Your task to perform on an android device: Clear the cart on amazon. Add "usb-a" to the cart on amazon, then select checkout. Image 0: 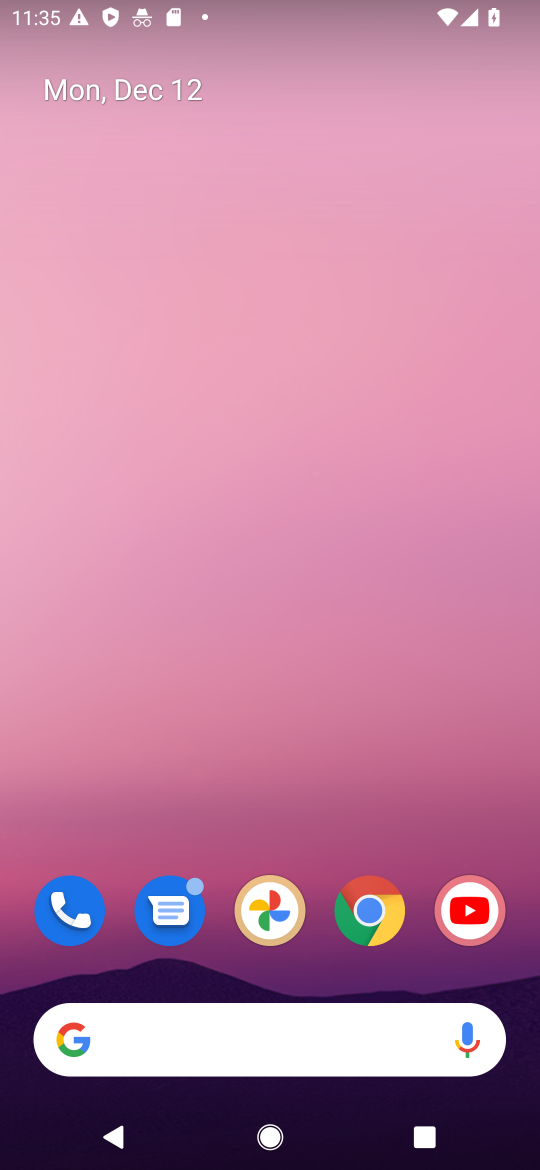
Step 0: click (371, 903)
Your task to perform on an android device: Clear the cart on amazon. Add "usb-a" to the cart on amazon, then select checkout. Image 1: 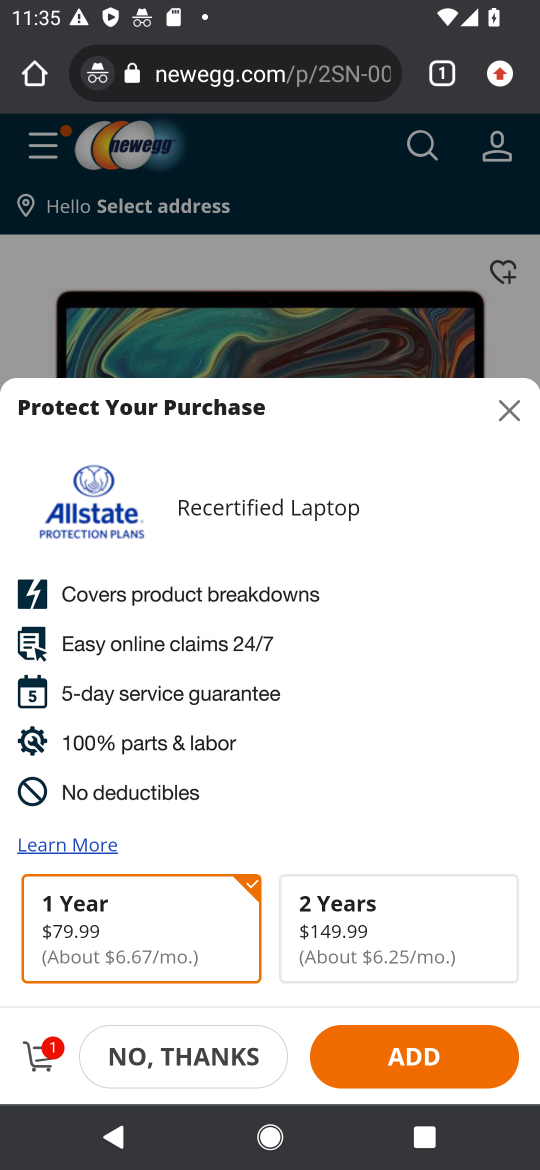
Step 1: click (512, 410)
Your task to perform on an android device: Clear the cart on amazon. Add "usb-a" to the cart on amazon, then select checkout. Image 2: 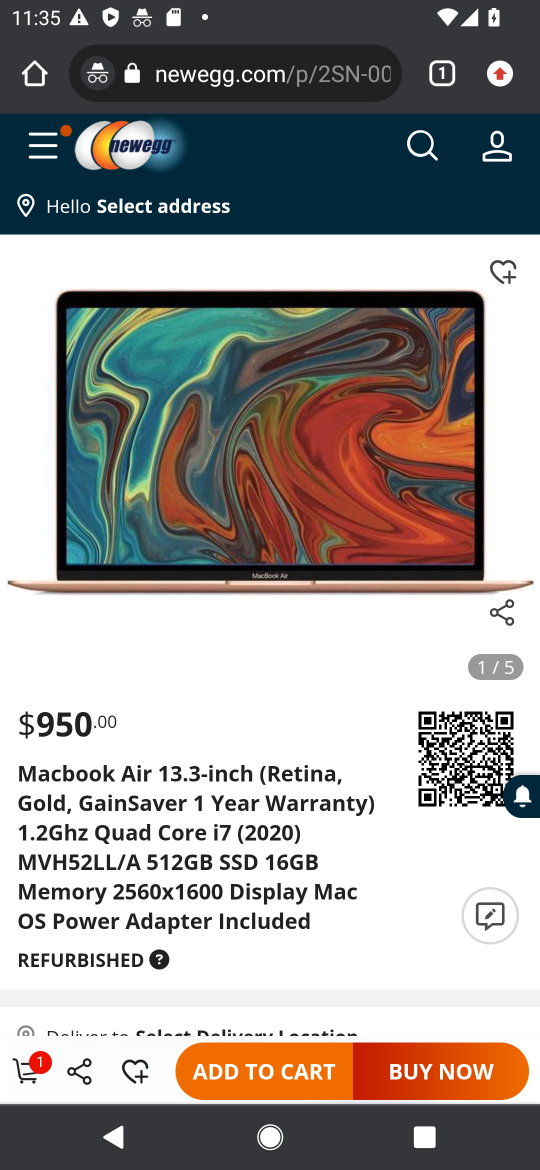
Step 2: click (268, 68)
Your task to perform on an android device: Clear the cart on amazon. Add "usb-a" to the cart on amazon, then select checkout. Image 3: 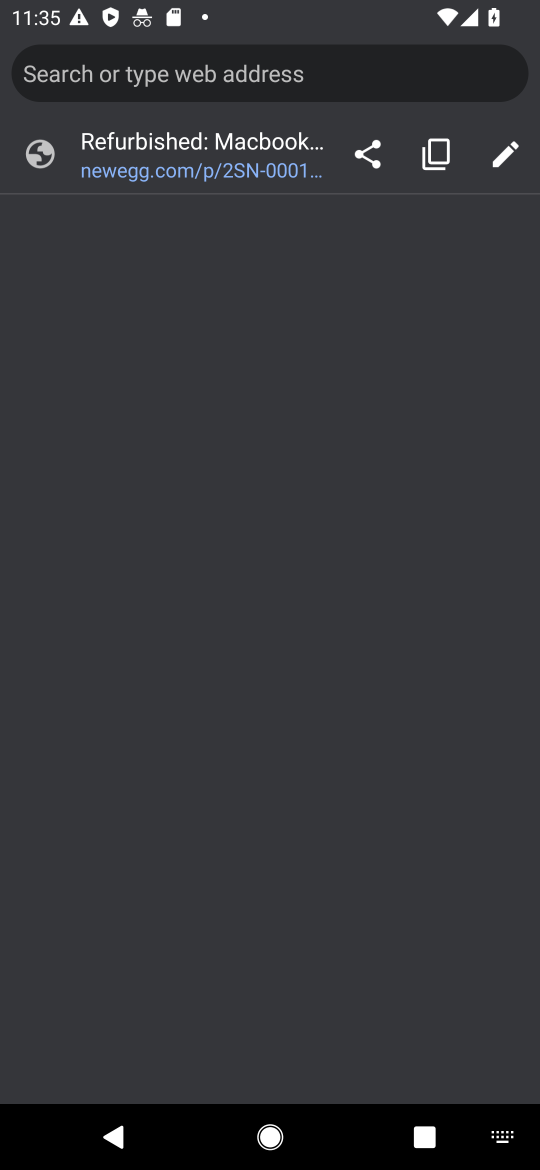
Step 3: type "amazon"
Your task to perform on an android device: Clear the cart on amazon. Add "usb-a" to the cart on amazon, then select checkout. Image 4: 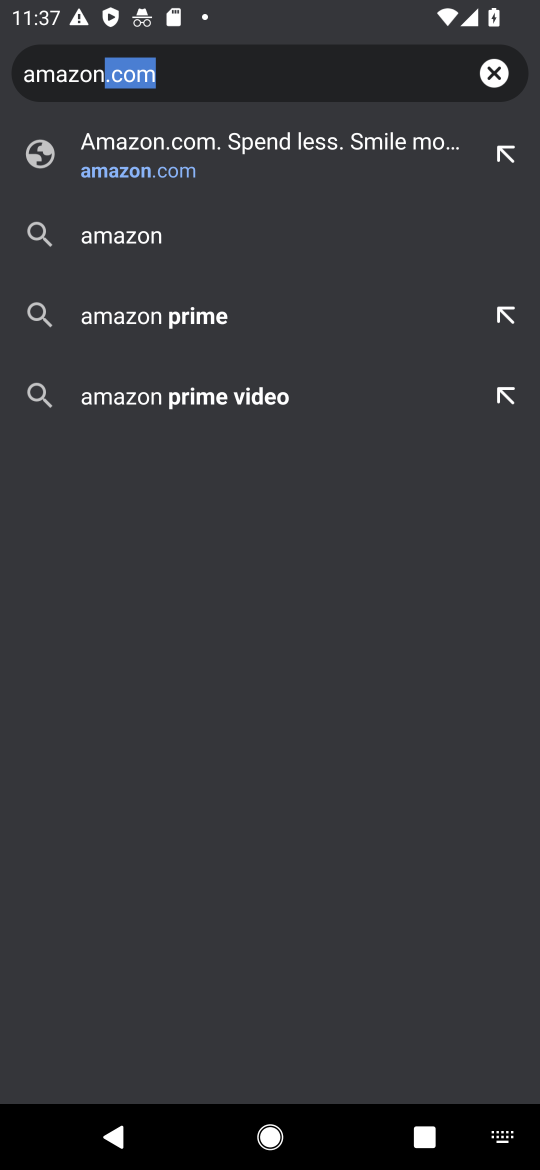
Step 4: click (246, 170)
Your task to perform on an android device: Clear the cart on amazon. Add "usb-a" to the cart on amazon, then select checkout. Image 5: 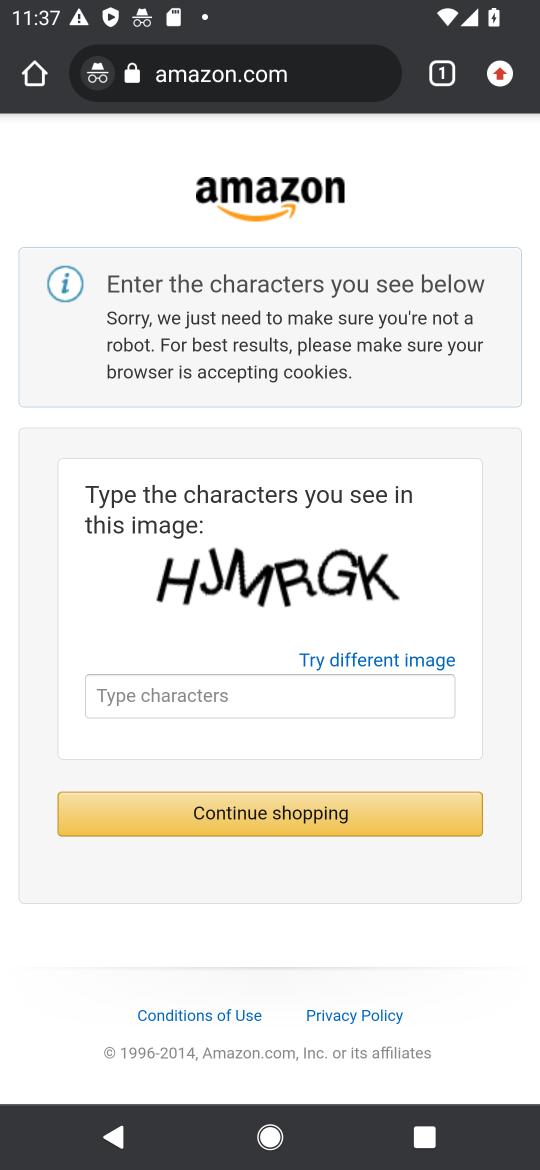
Step 5: click (195, 696)
Your task to perform on an android device: Clear the cart on amazon. Add "usb-a" to the cart on amazon, then select checkout. Image 6: 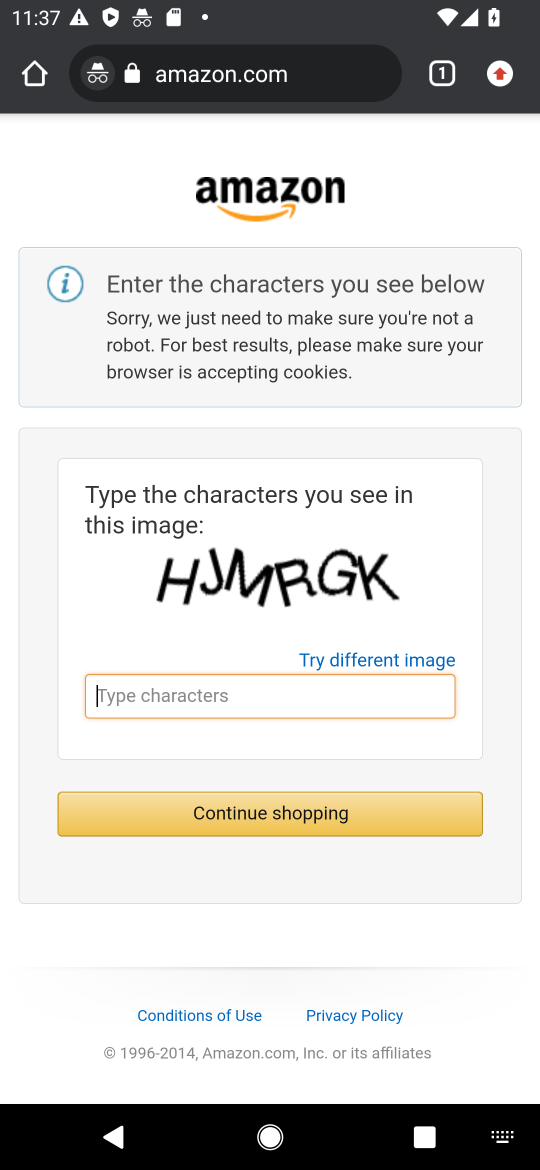
Step 6: type "HJMRGK"
Your task to perform on an android device: Clear the cart on amazon. Add "usb-a" to the cart on amazon, then select checkout. Image 7: 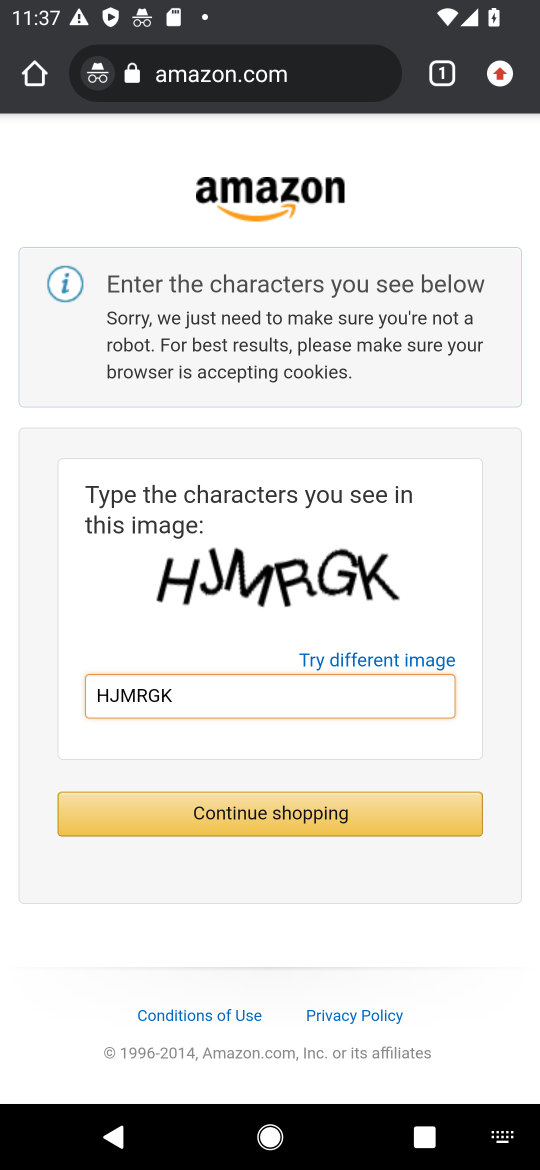
Step 7: click (270, 822)
Your task to perform on an android device: Clear the cart on amazon. Add "usb-a" to the cart on amazon, then select checkout. Image 8: 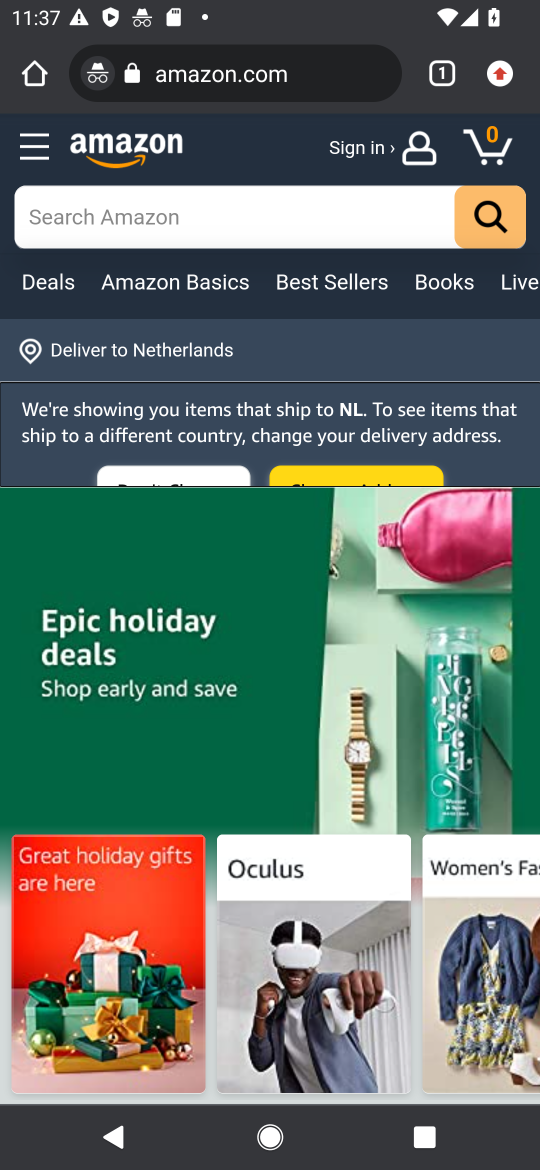
Step 8: click (270, 223)
Your task to perform on an android device: Clear the cart on amazon. Add "usb-a" to the cart on amazon, then select checkout. Image 9: 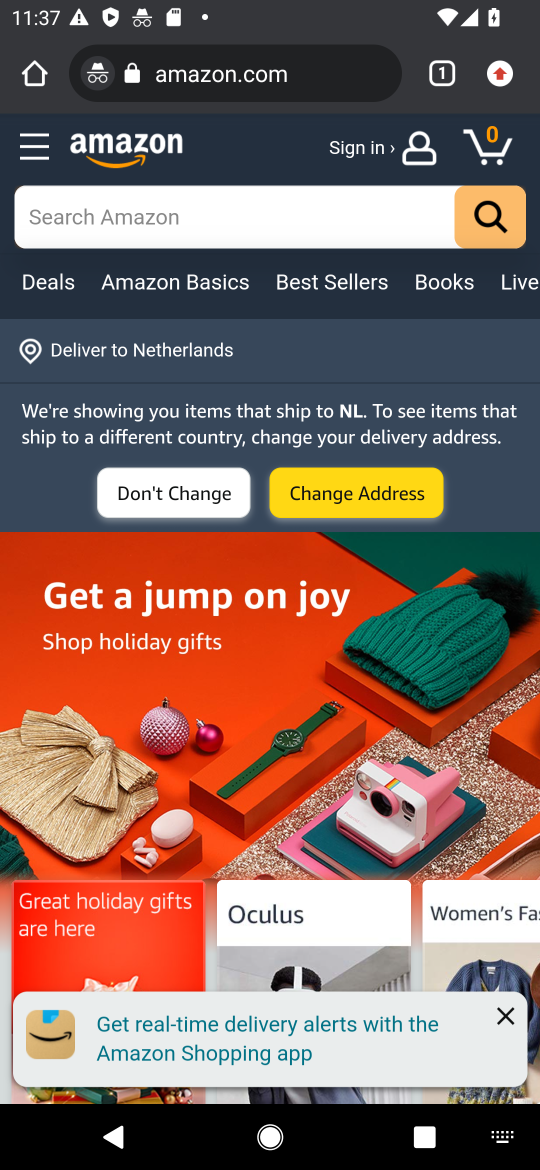
Step 9: type "usb-a"
Your task to perform on an android device: Clear the cart on amazon. Add "usb-a" to the cart on amazon, then select checkout. Image 10: 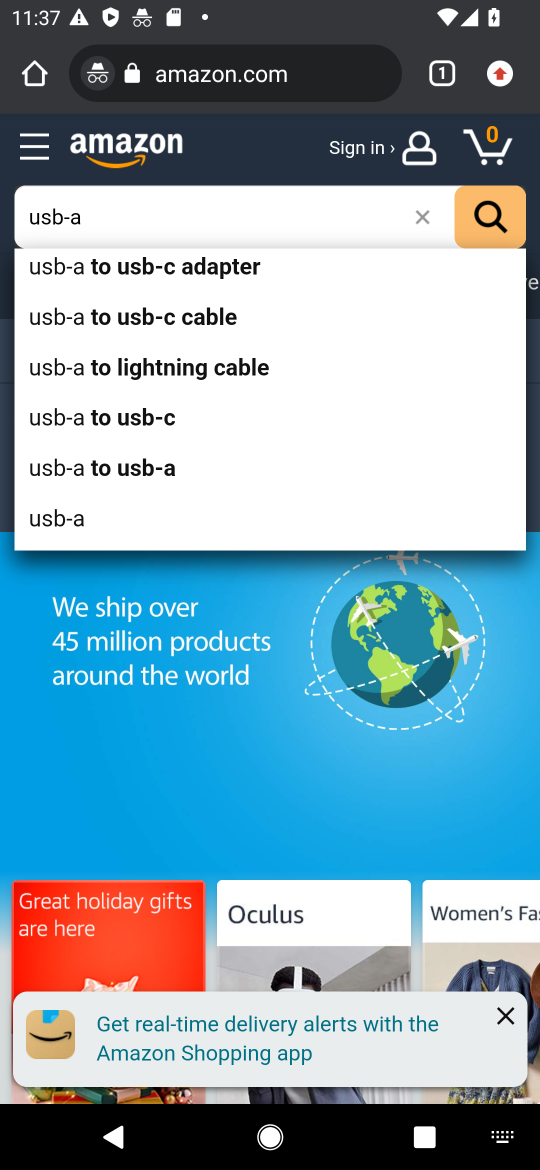
Step 10: click (97, 267)
Your task to perform on an android device: Clear the cart on amazon. Add "usb-a" to the cart on amazon, then select checkout. Image 11: 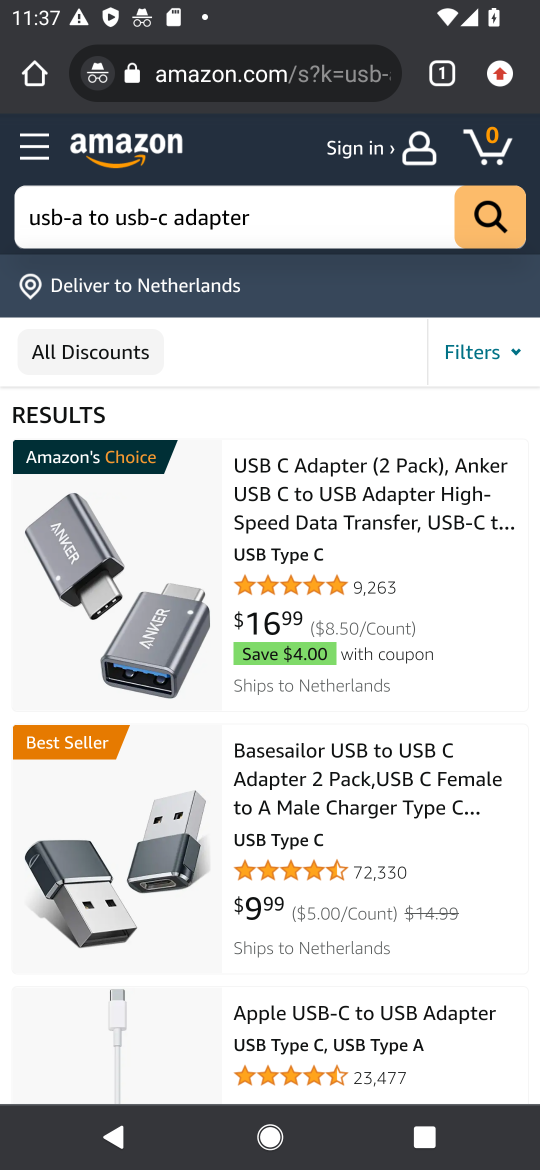
Step 11: click (477, 537)
Your task to perform on an android device: Clear the cart on amazon. Add "usb-a" to the cart on amazon, then select checkout. Image 12: 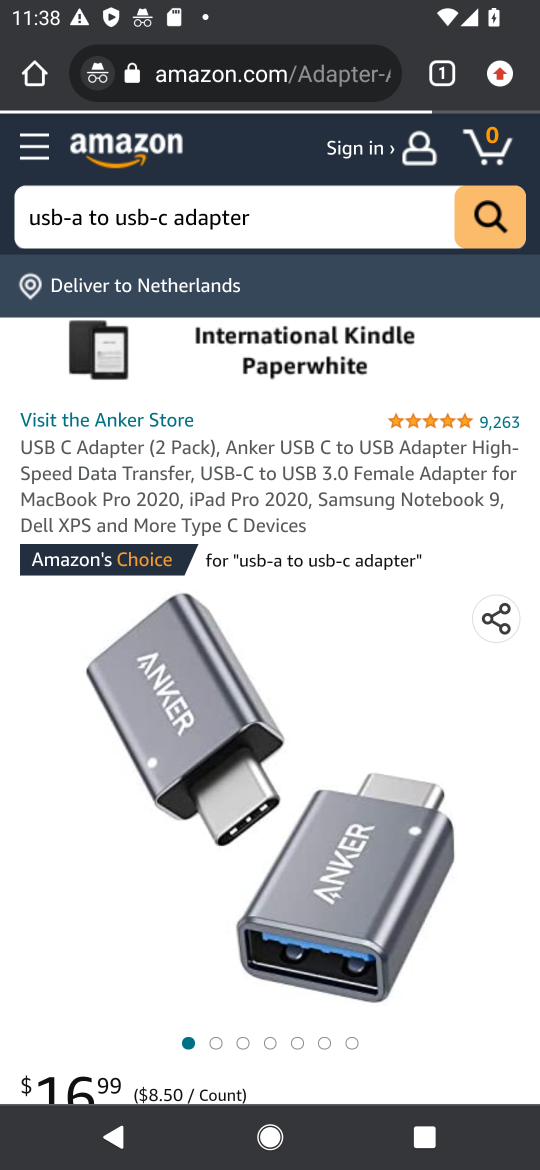
Step 12: drag from (351, 948) to (295, 205)
Your task to perform on an android device: Clear the cart on amazon. Add "usb-a" to the cart on amazon, then select checkout. Image 13: 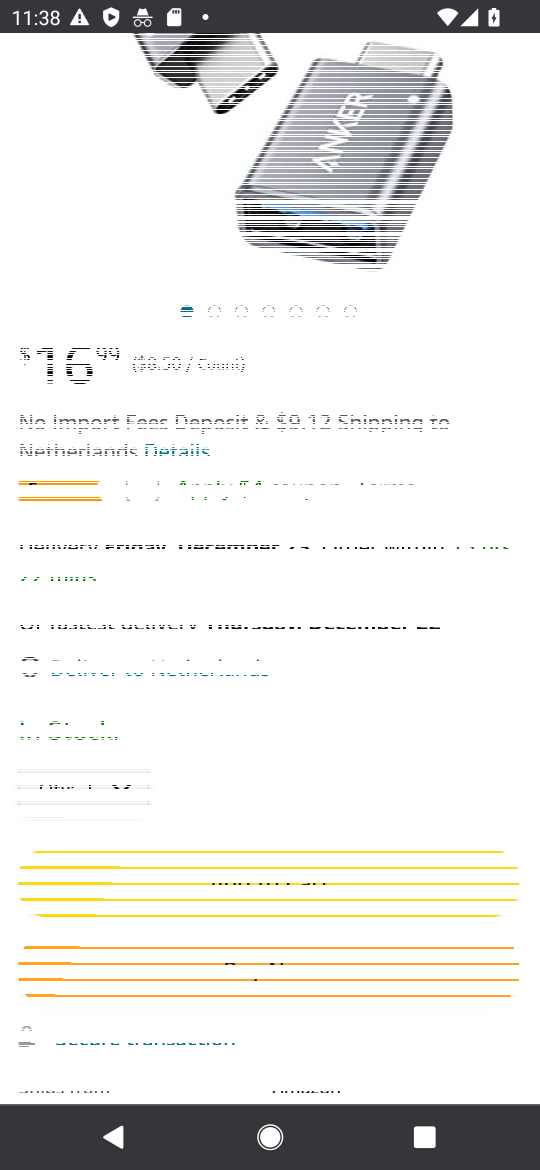
Step 13: click (249, 870)
Your task to perform on an android device: Clear the cart on amazon. Add "usb-a" to the cart on amazon, then select checkout. Image 14: 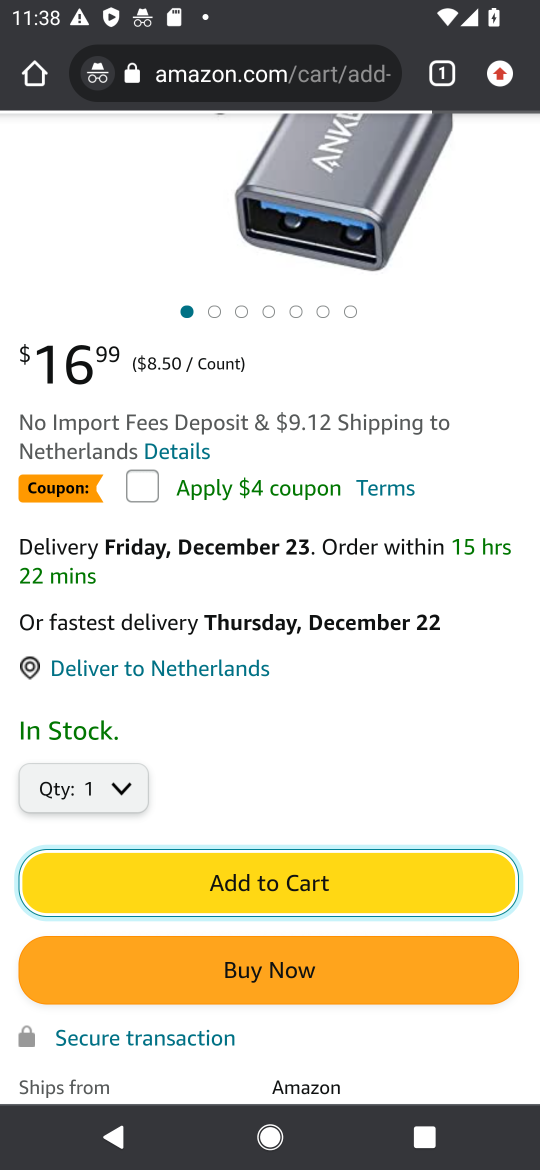
Step 14: click (249, 870)
Your task to perform on an android device: Clear the cart on amazon. Add "usb-a" to the cart on amazon, then select checkout. Image 15: 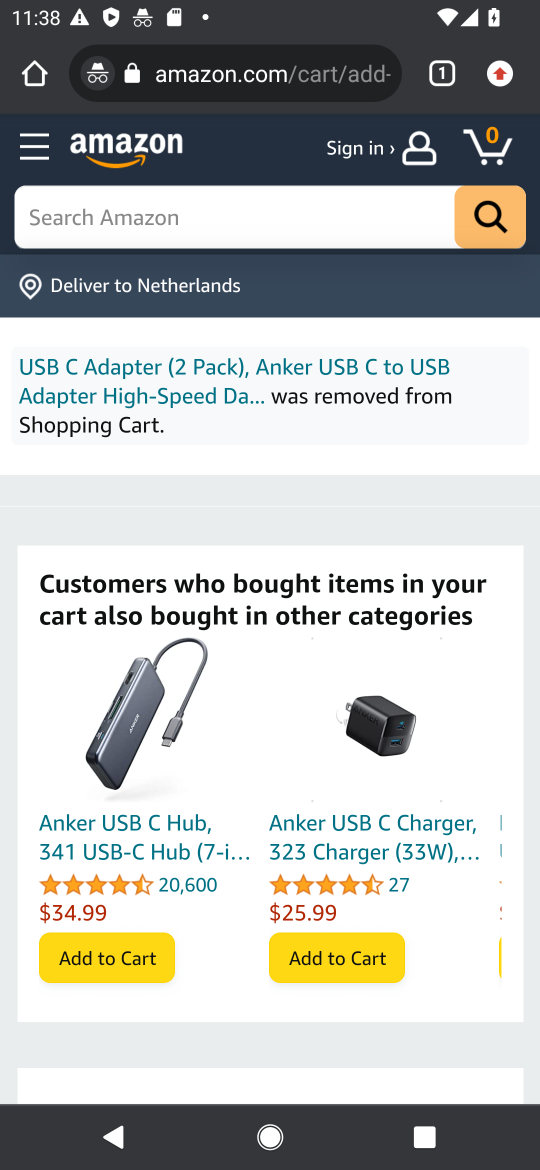
Step 15: task complete